Your task to perform on an android device: open a bookmark in the chrome app Image 0: 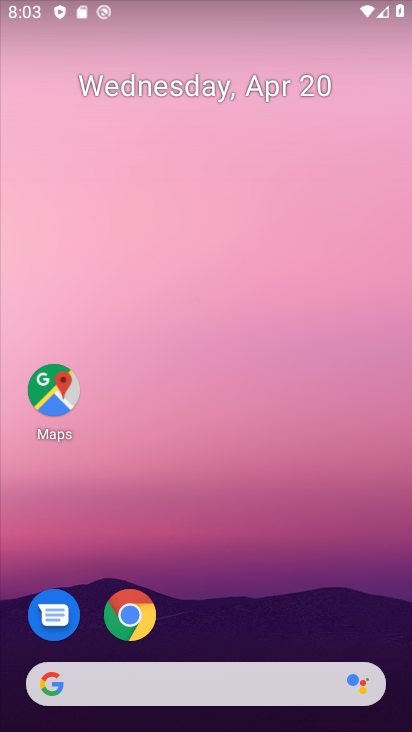
Step 0: click (131, 620)
Your task to perform on an android device: open a bookmark in the chrome app Image 1: 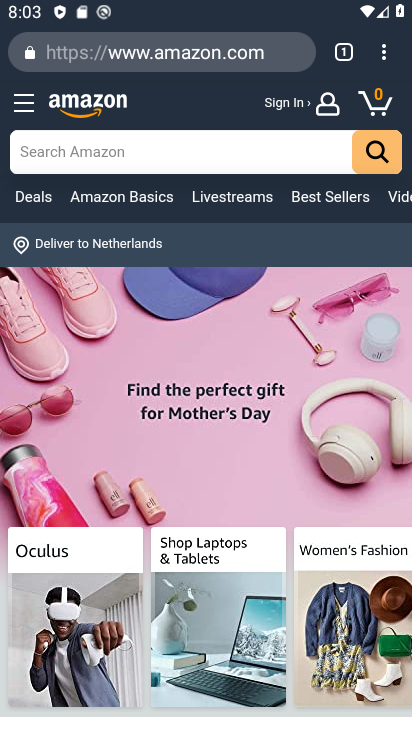
Step 1: click (388, 51)
Your task to perform on an android device: open a bookmark in the chrome app Image 2: 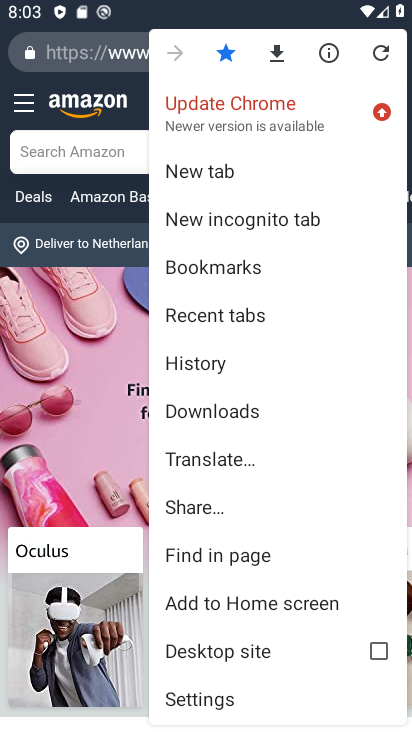
Step 2: click (236, 266)
Your task to perform on an android device: open a bookmark in the chrome app Image 3: 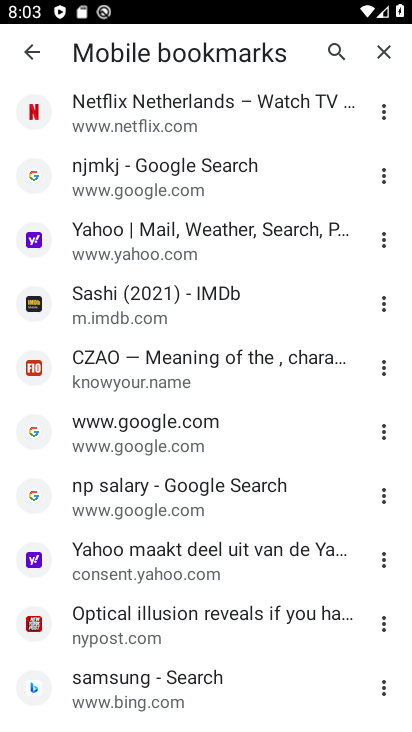
Step 3: task complete